Your task to perform on an android device: Open wifi settings Image 0: 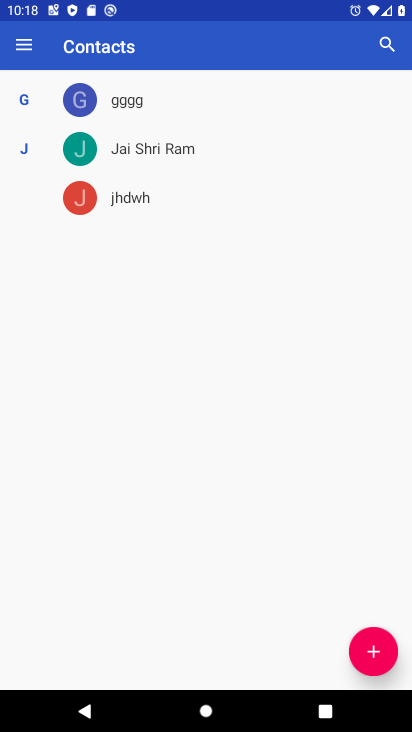
Step 0: press back button
Your task to perform on an android device: Open wifi settings Image 1: 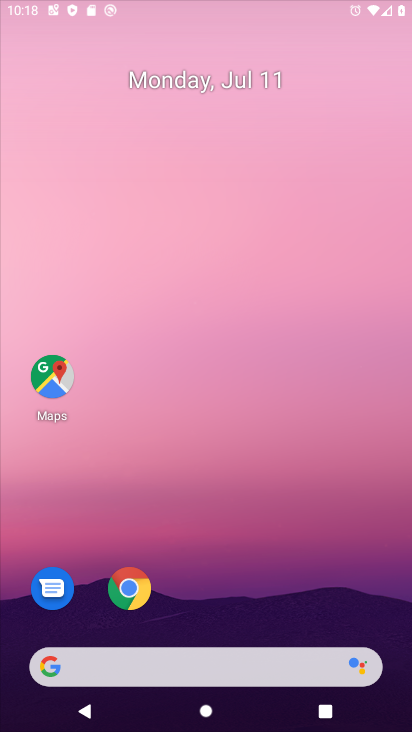
Step 1: press back button
Your task to perform on an android device: Open wifi settings Image 2: 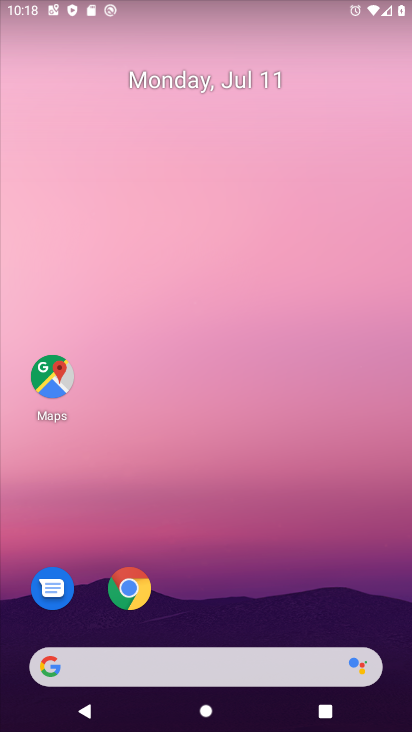
Step 2: drag from (81, 114) to (151, 546)
Your task to perform on an android device: Open wifi settings Image 3: 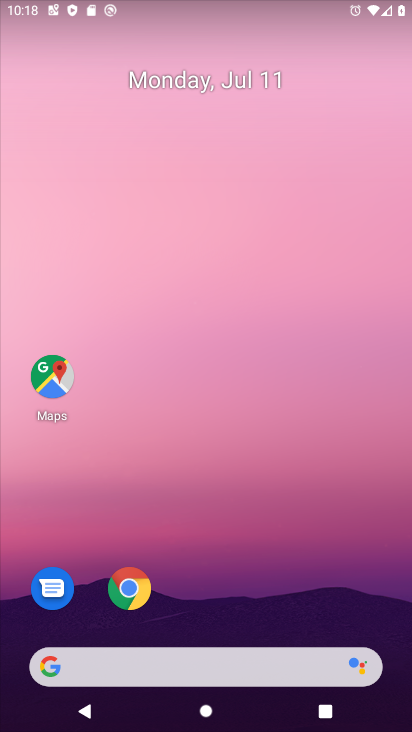
Step 3: drag from (73, 0) to (141, 424)
Your task to perform on an android device: Open wifi settings Image 4: 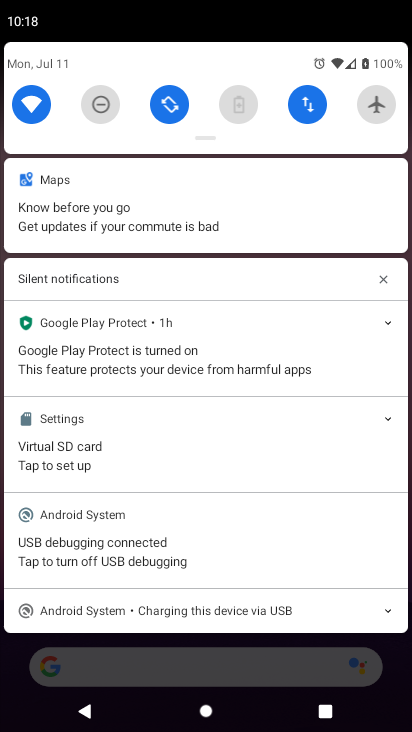
Step 4: click (39, 101)
Your task to perform on an android device: Open wifi settings Image 5: 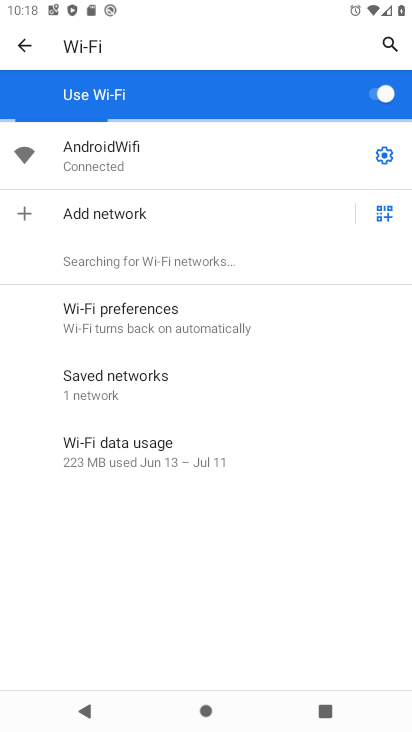
Step 5: task complete